Your task to perform on an android device: Open calendar and show me the second week of next month Image 0: 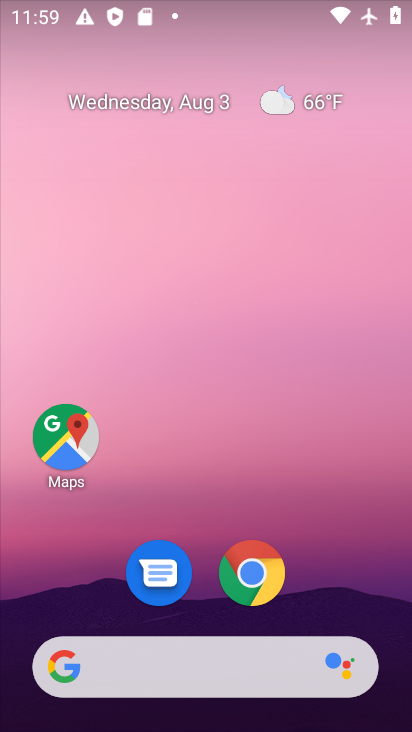
Step 0: drag from (326, 500) to (312, 83)
Your task to perform on an android device: Open calendar and show me the second week of next month Image 1: 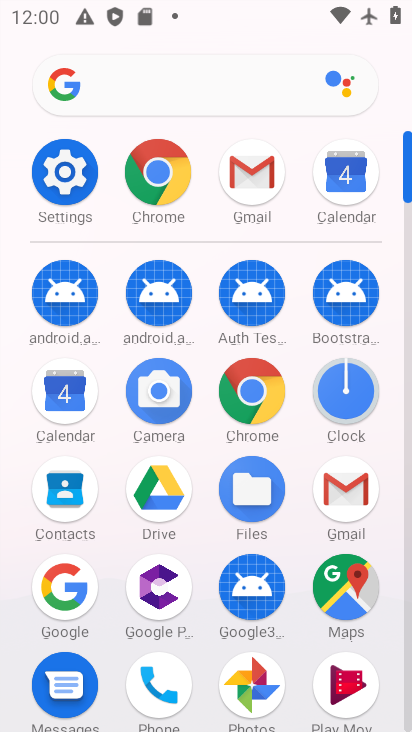
Step 1: click (73, 398)
Your task to perform on an android device: Open calendar and show me the second week of next month Image 2: 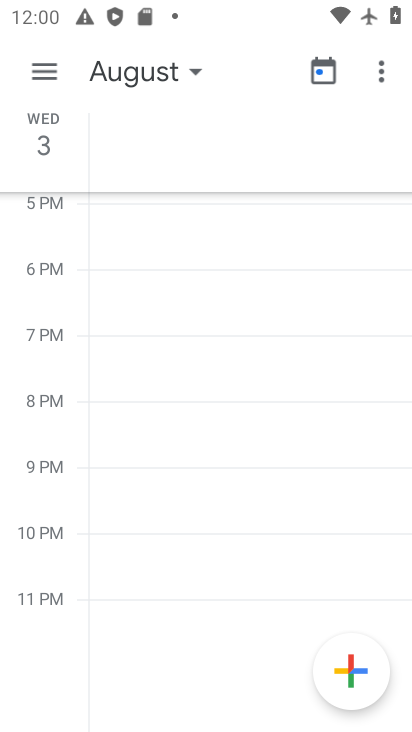
Step 2: click (115, 76)
Your task to perform on an android device: Open calendar and show me the second week of next month Image 3: 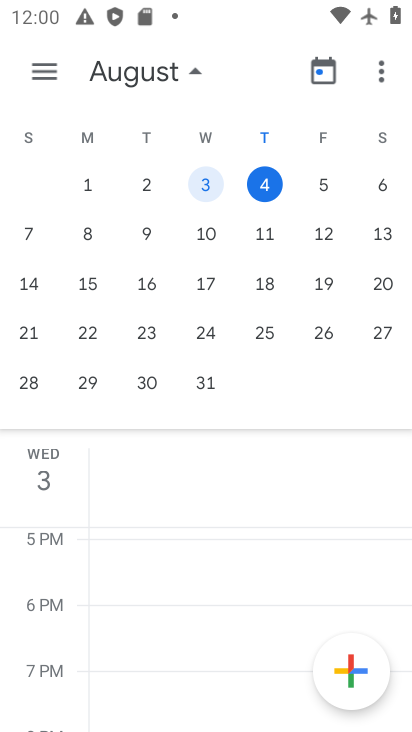
Step 3: drag from (391, 360) to (48, 317)
Your task to perform on an android device: Open calendar and show me the second week of next month Image 4: 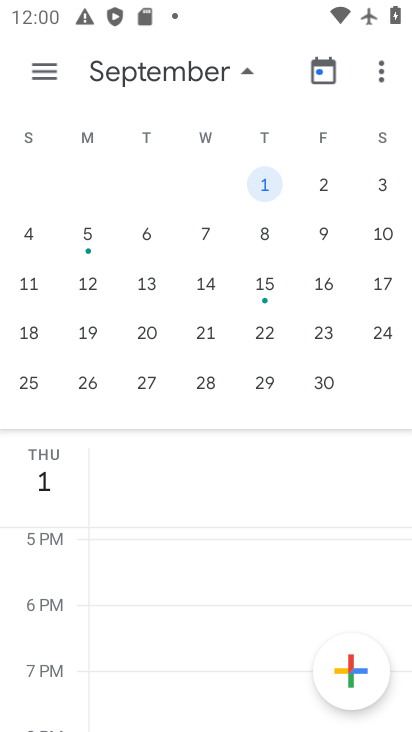
Step 4: click (141, 278)
Your task to perform on an android device: Open calendar and show me the second week of next month Image 5: 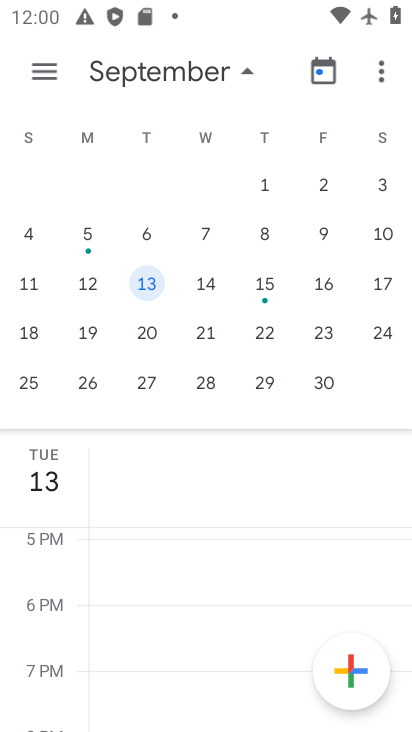
Step 5: click (40, 64)
Your task to perform on an android device: Open calendar and show me the second week of next month Image 6: 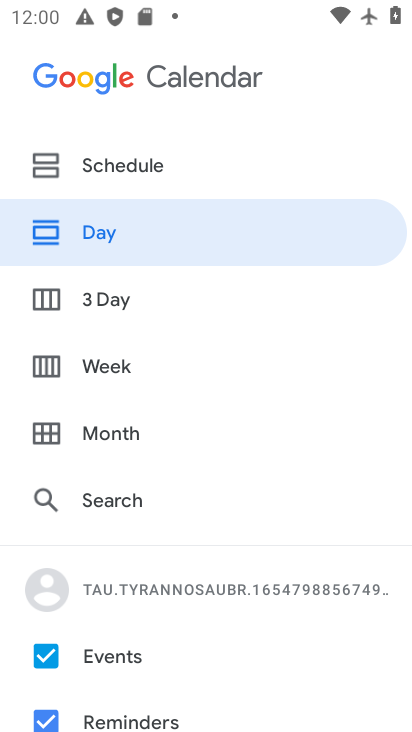
Step 6: click (108, 361)
Your task to perform on an android device: Open calendar and show me the second week of next month Image 7: 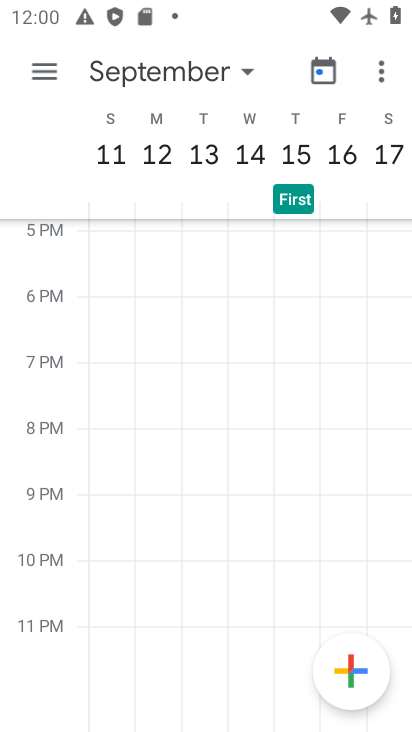
Step 7: task complete